Your task to perform on an android device: Open ESPN.com Image 0: 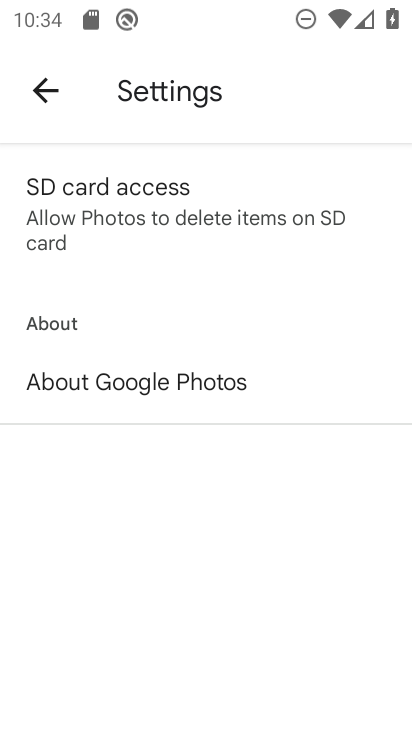
Step 0: press home button
Your task to perform on an android device: Open ESPN.com Image 1: 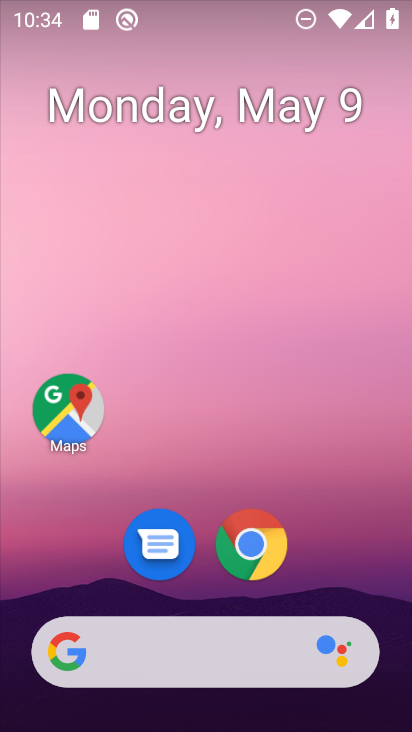
Step 1: click (249, 539)
Your task to perform on an android device: Open ESPN.com Image 2: 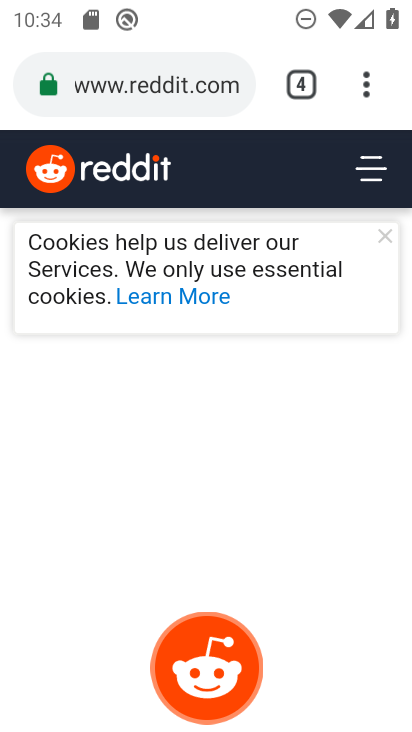
Step 2: click (364, 75)
Your task to perform on an android device: Open ESPN.com Image 3: 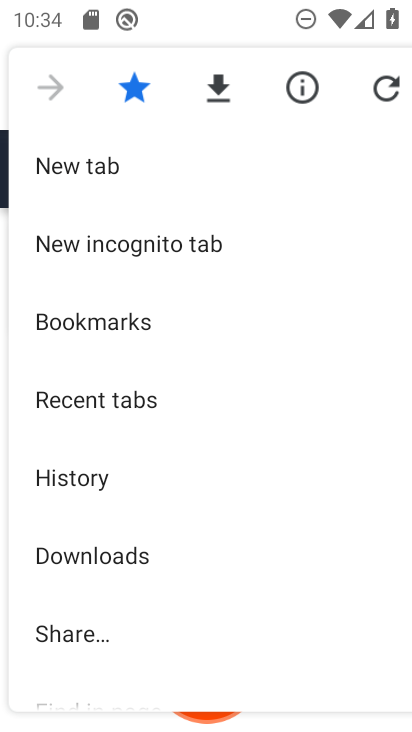
Step 3: click (58, 163)
Your task to perform on an android device: Open ESPN.com Image 4: 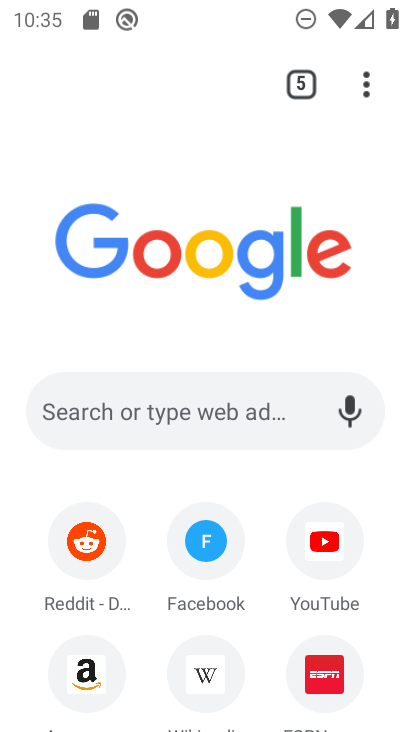
Step 4: click (174, 393)
Your task to perform on an android device: Open ESPN.com Image 5: 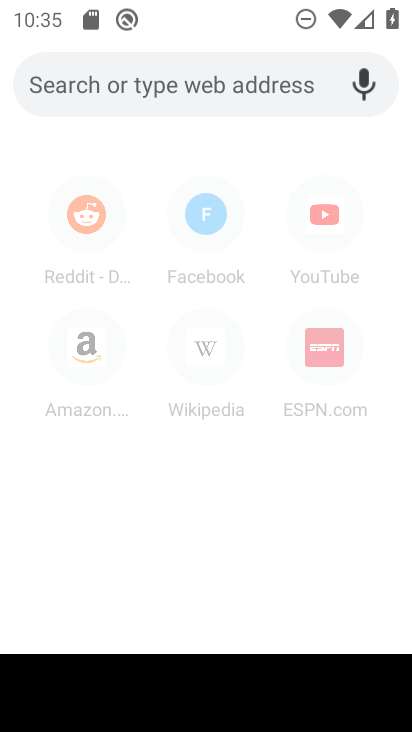
Step 5: type "espn.com"
Your task to perform on an android device: Open ESPN.com Image 6: 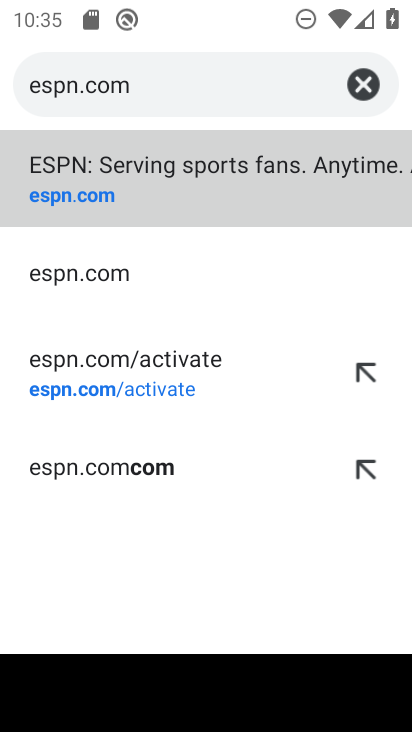
Step 6: click (261, 174)
Your task to perform on an android device: Open ESPN.com Image 7: 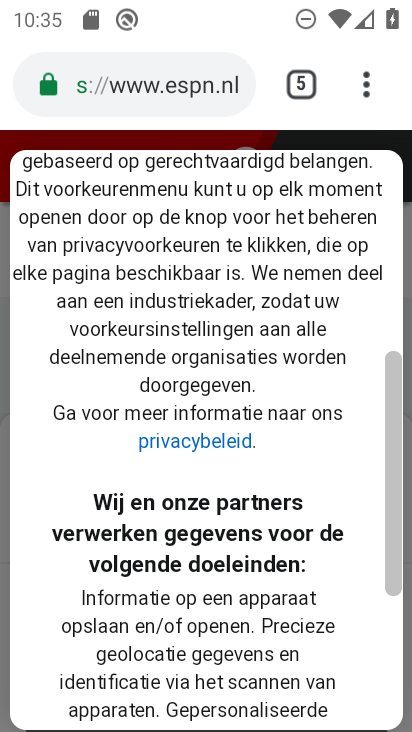
Step 7: task complete